Your task to perform on an android device: open the mobile data screen to see how much data has been used Image 0: 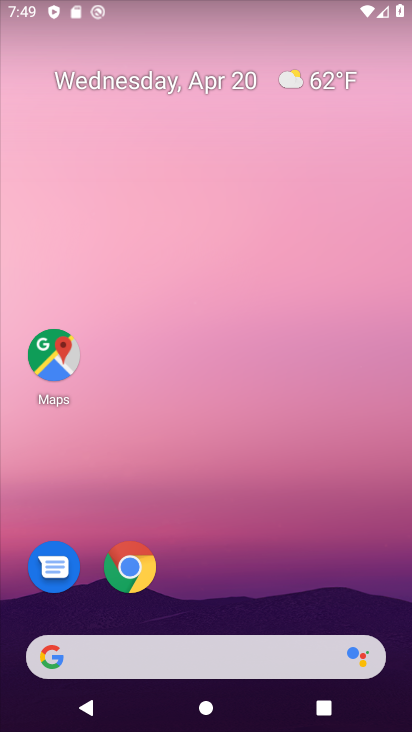
Step 0: drag from (374, 572) to (400, 42)
Your task to perform on an android device: open the mobile data screen to see how much data has been used Image 1: 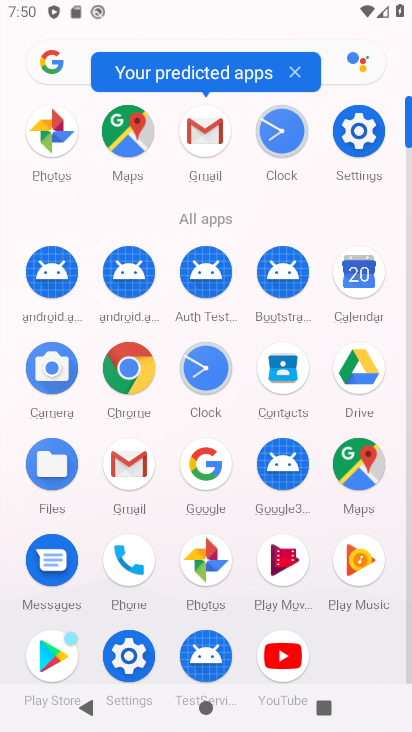
Step 1: click (361, 137)
Your task to perform on an android device: open the mobile data screen to see how much data has been used Image 2: 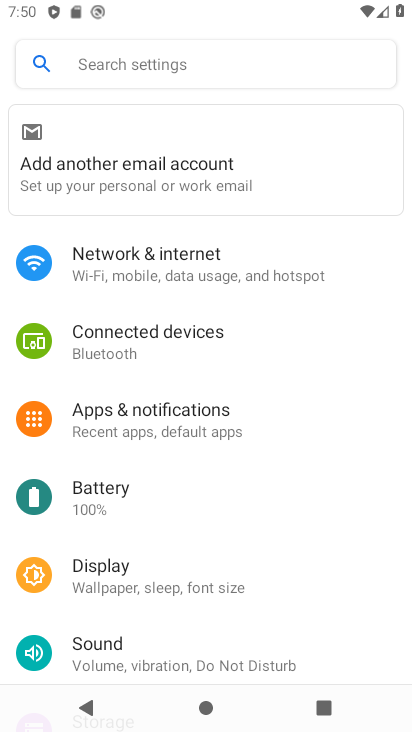
Step 2: click (126, 277)
Your task to perform on an android device: open the mobile data screen to see how much data has been used Image 3: 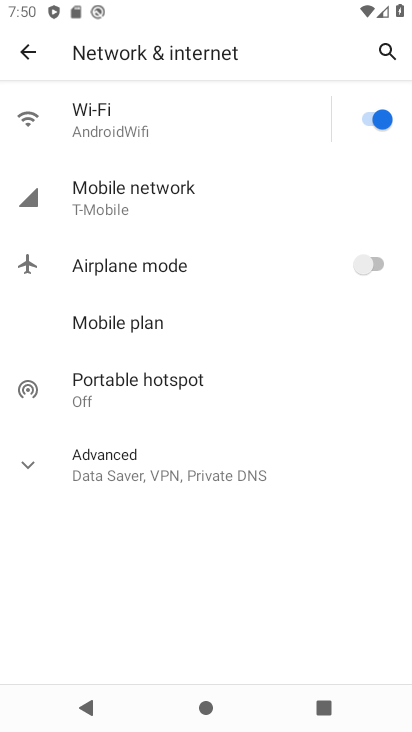
Step 3: click (112, 209)
Your task to perform on an android device: open the mobile data screen to see how much data has been used Image 4: 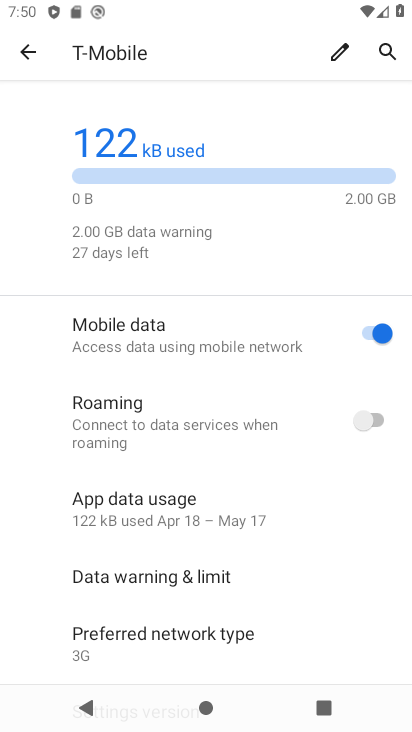
Step 4: click (126, 516)
Your task to perform on an android device: open the mobile data screen to see how much data has been used Image 5: 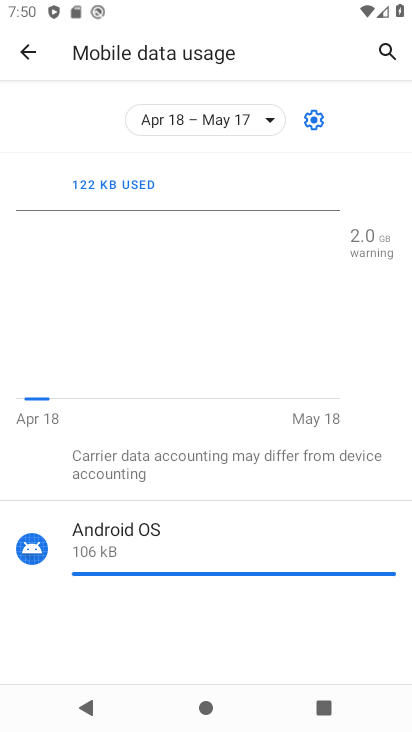
Step 5: task complete